Your task to perform on an android device: Set the phone to "Do not disturb". Image 0: 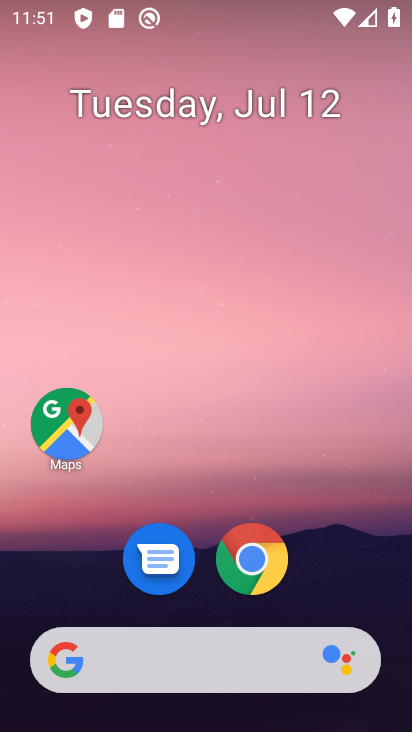
Step 0: drag from (170, 688) to (177, 262)
Your task to perform on an android device: Set the phone to "Do not disturb". Image 1: 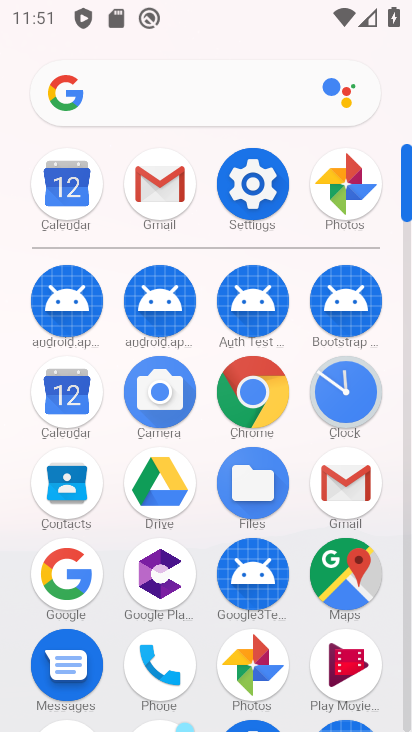
Step 1: drag from (201, 9) to (216, 484)
Your task to perform on an android device: Set the phone to "Do not disturb". Image 2: 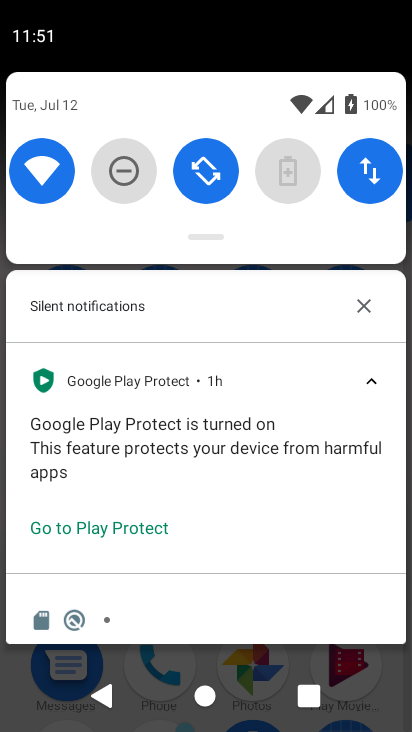
Step 2: drag from (193, 224) to (195, 528)
Your task to perform on an android device: Set the phone to "Do not disturb". Image 3: 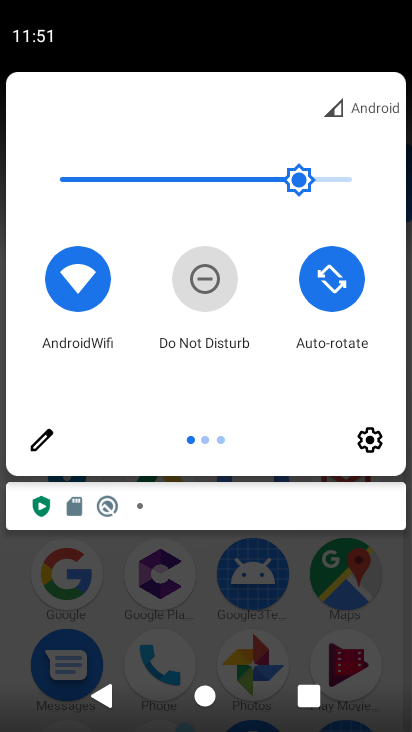
Step 3: click (213, 269)
Your task to perform on an android device: Set the phone to "Do not disturb". Image 4: 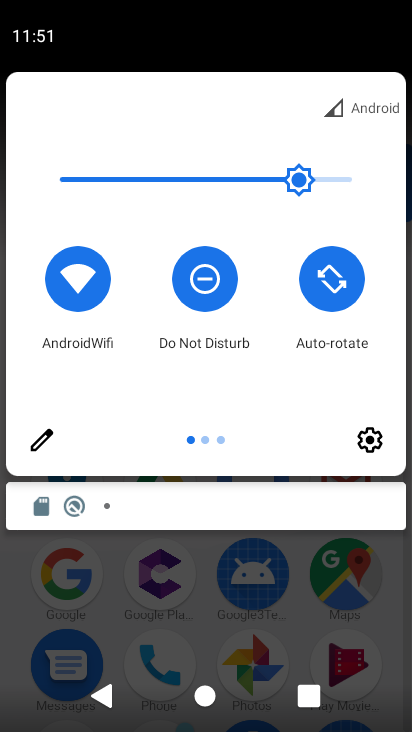
Step 4: task complete